Your task to perform on an android device: add a label to a message in the gmail app Image 0: 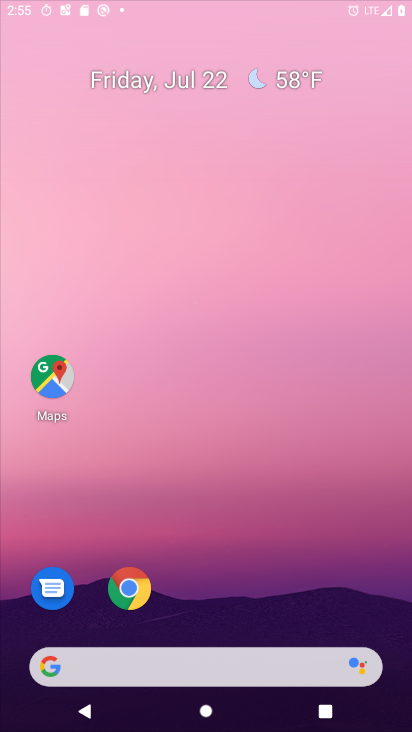
Step 0: drag from (231, 0) to (259, 19)
Your task to perform on an android device: add a label to a message in the gmail app Image 1: 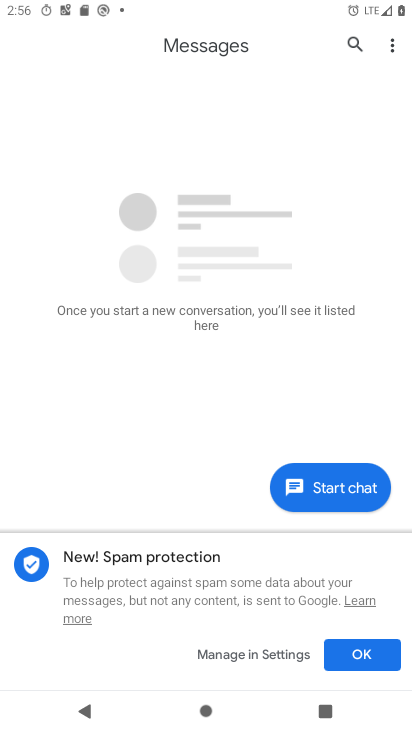
Step 1: press home button
Your task to perform on an android device: add a label to a message in the gmail app Image 2: 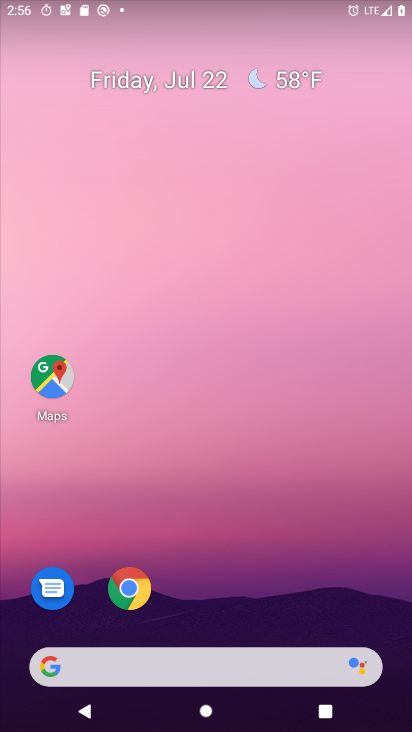
Step 2: drag from (281, 560) to (259, 1)
Your task to perform on an android device: add a label to a message in the gmail app Image 3: 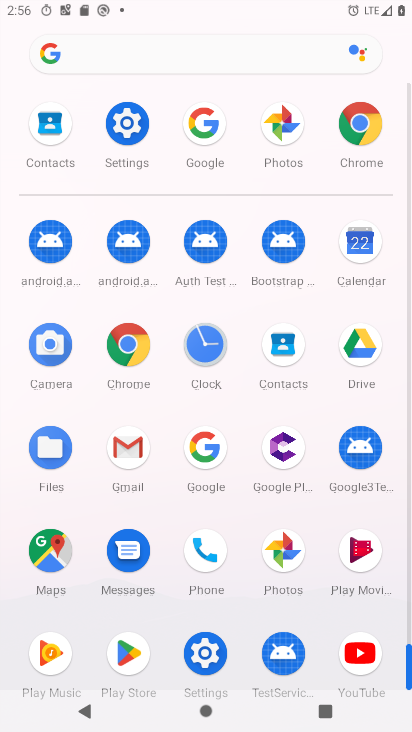
Step 3: click (119, 443)
Your task to perform on an android device: add a label to a message in the gmail app Image 4: 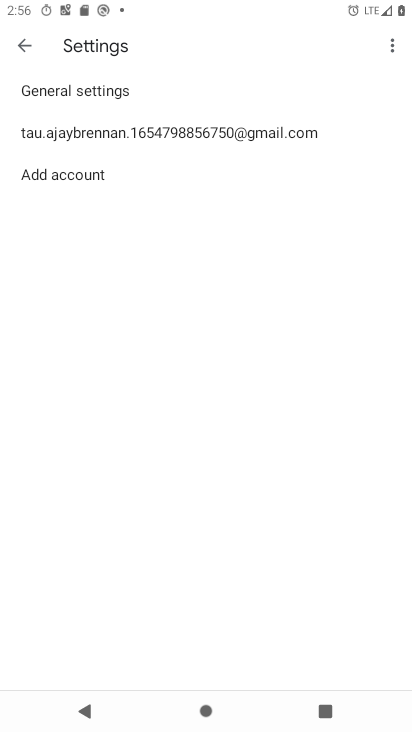
Step 4: click (27, 43)
Your task to perform on an android device: add a label to a message in the gmail app Image 5: 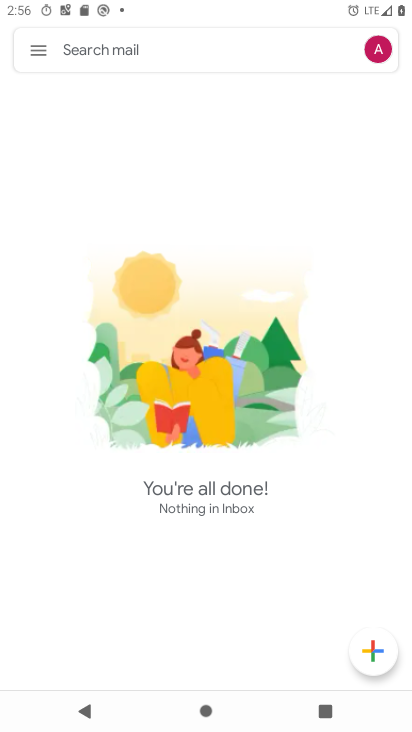
Step 5: task complete